Your task to perform on an android device: toggle improve location accuracy Image 0: 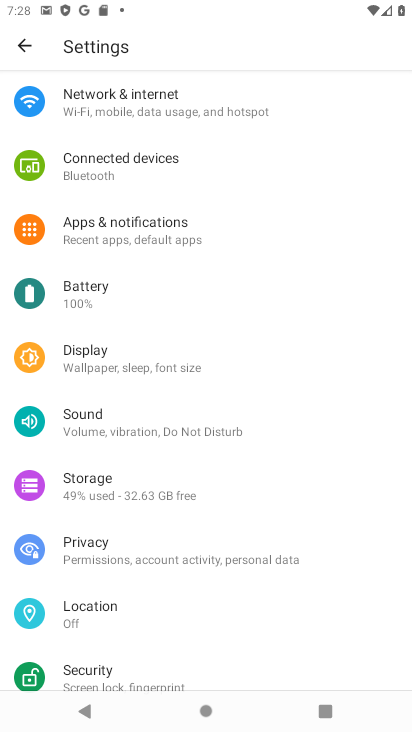
Step 0: press home button
Your task to perform on an android device: toggle improve location accuracy Image 1: 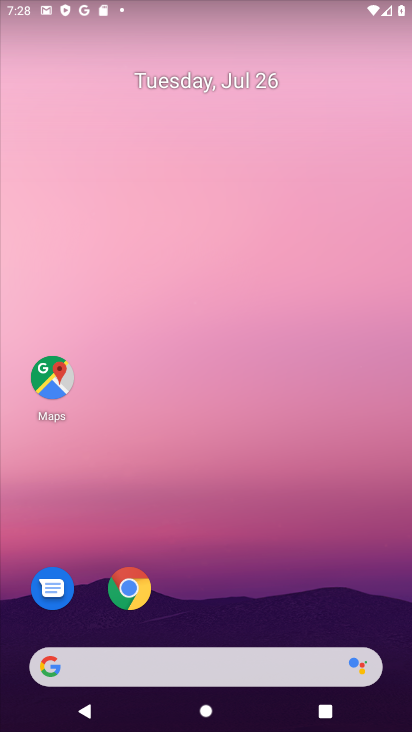
Step 1: drag from (228, 676) to (255, 186)
Your task to perform on an android device: toggle improve location accuracy Image 2: 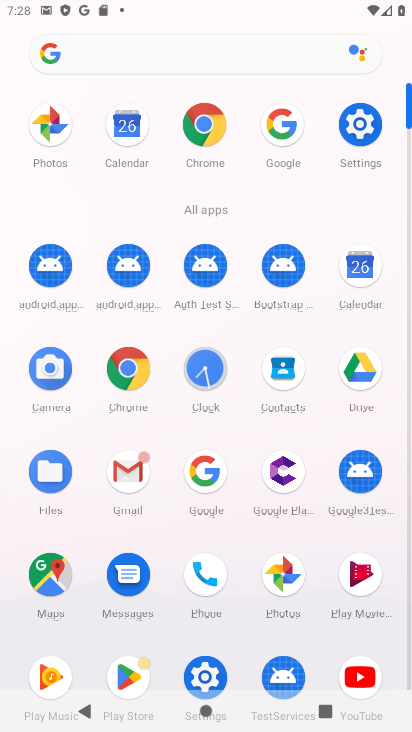
Step 2: click (375, 156)
Your task to perform on an android device: toggle improve location accuracy Image 3: 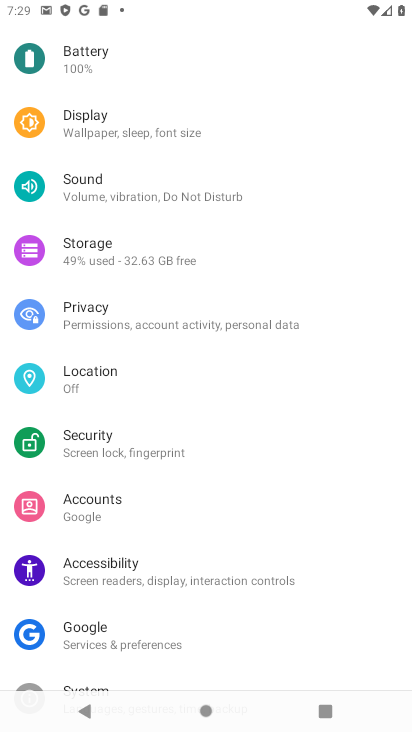
Step 3: click (111, 390)
Your task to perform on an android device: toggle improve location accuracy Image 4: 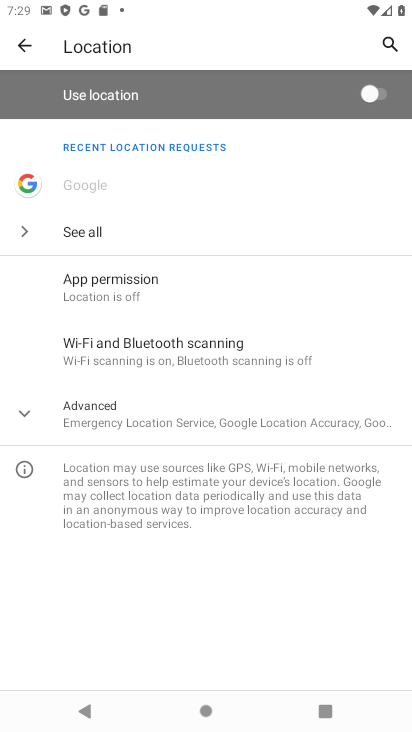
Step 4: click (129, 413)
Your task to perform on an android device: toggle improve location accuracy Image 5: 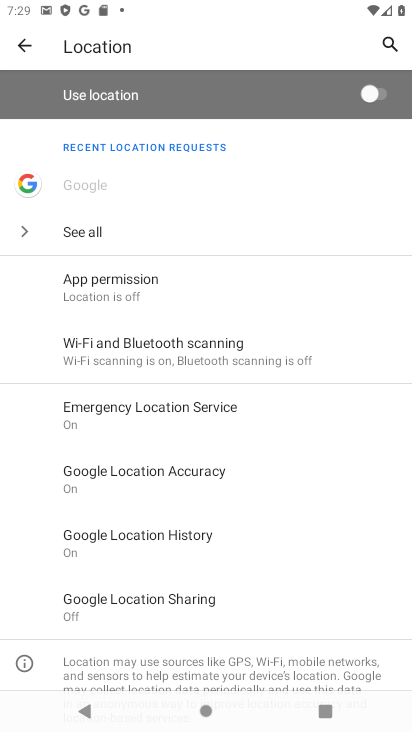
Step 5: click (152, 485)
Your task to perform on an android device: toggle improve location accuracy Image 6: 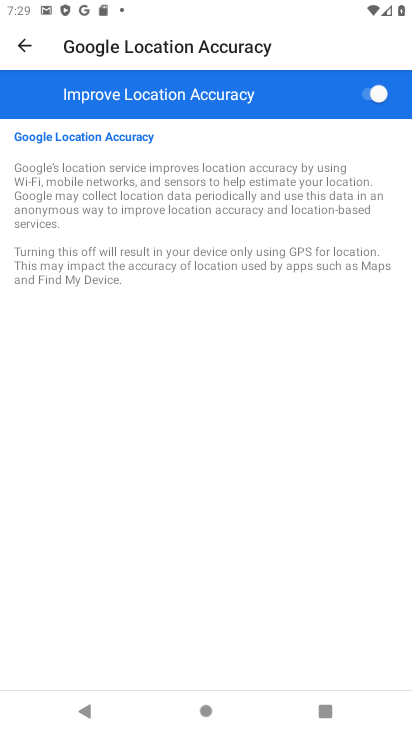
Step 6: click (366, 93)
Your task to perform on an android device: toggle improve location accuracy Image 7: 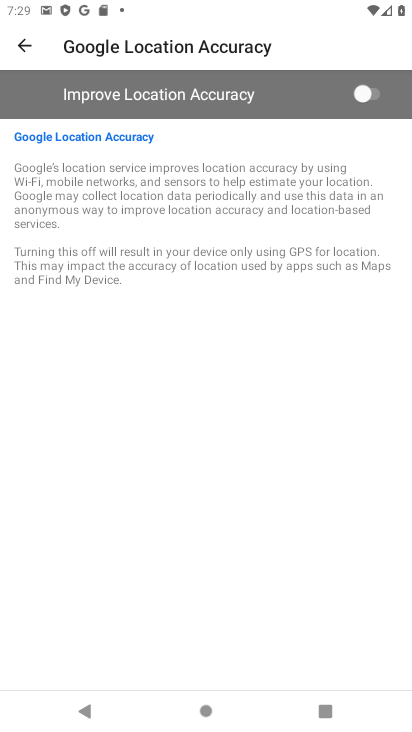
Step 7: task complete